Your task to perform on an android device: When is my next appointment? Image 0: 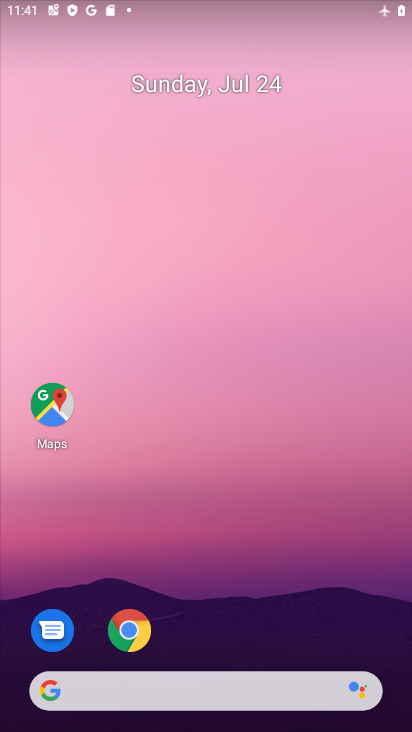
Step 0: drag from (279, 512) to (309, 372)
Your task to perform on an android device: When is my next appointment? Image 1: 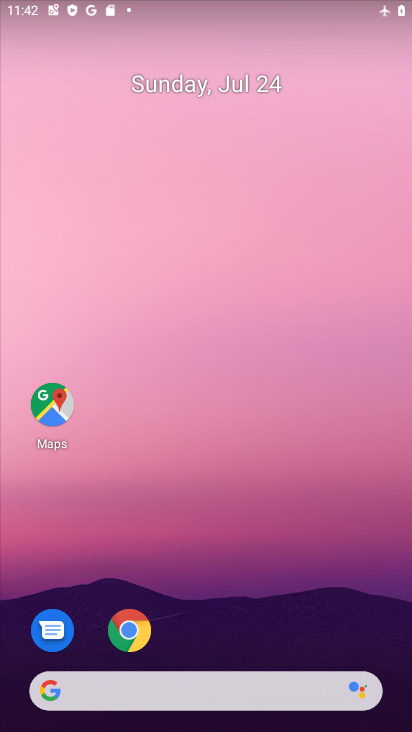
Step 1: drag from (281, 622) to (303, 124)
Your task to perform on an android device: When is my next appointment? Image 2: 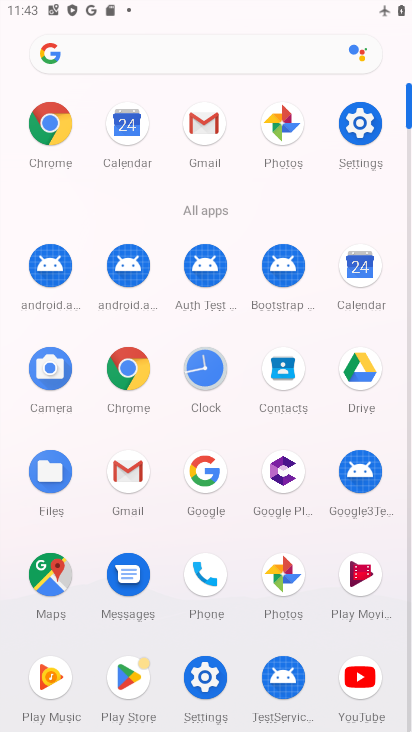
Step 2: click (338, 249)
Your task to perform on an android device: When is my next appointment? Image 3: 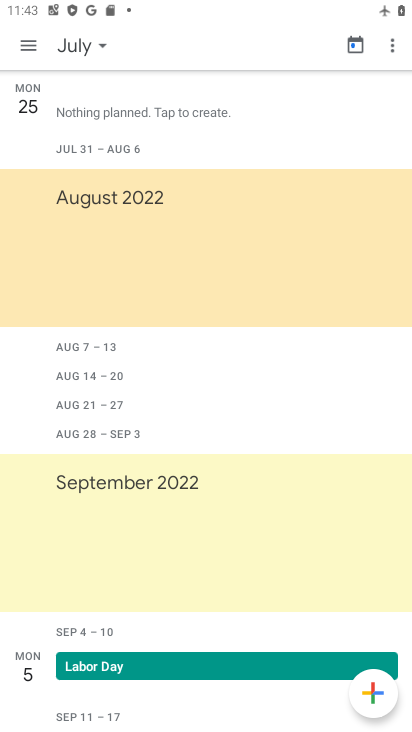
Step 3: task complete